Your task to perform on an android device: What's on my calendar tomorrow? Image 0: 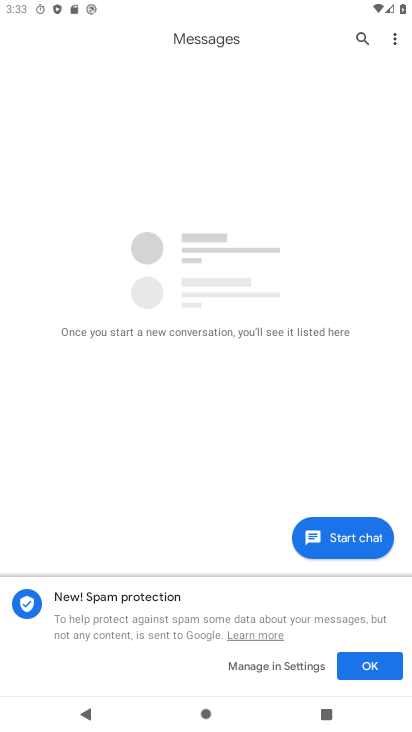
Step 0: press home button
Your task to perform on an android device: What's on my calendar tomorrow? Image 1: 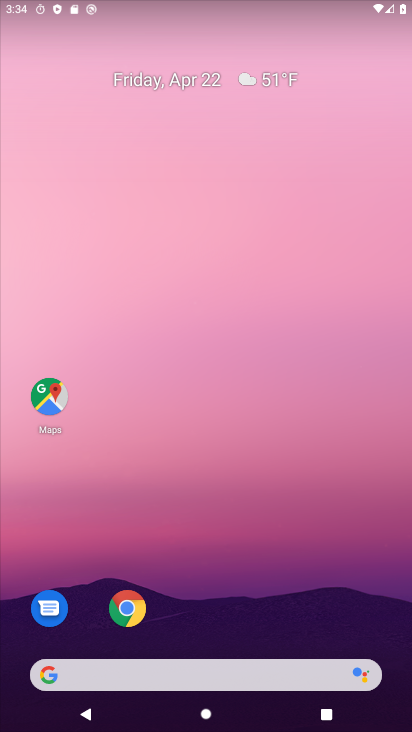
Step 1: drag from (233, 612) to (262, 176)
Your task to perform on an android device: What's on my calendar tomorrow? Image 2: 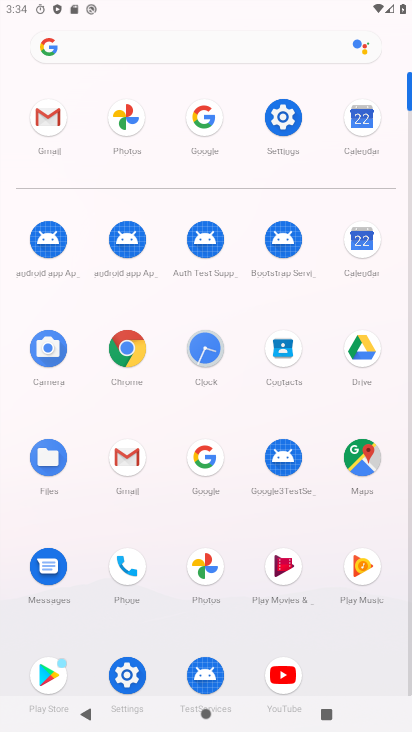
Step 2: click (368, 245)
Your task to perform on an android device: What's on my calendar tomorrow? Image 3: 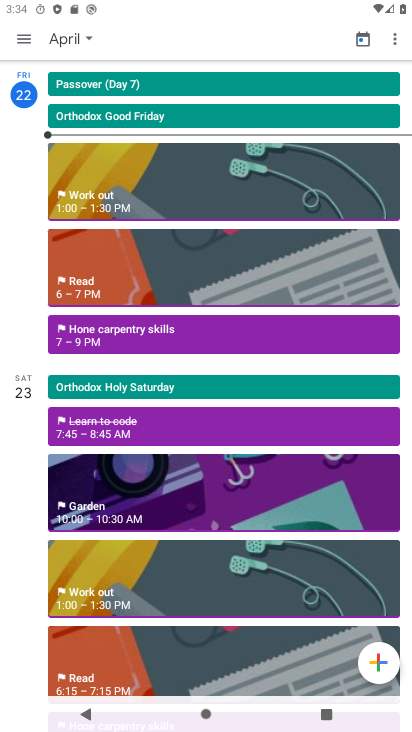
Step 3: task complete